Your task to perform on an android device: Go to Yahoo.com Image 0: 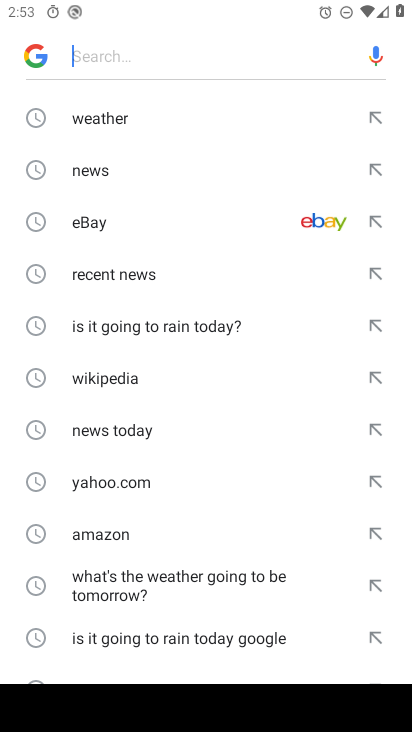
Step 0: press home button
Your task to perform on an android device: Go to Yahoo.com Image 1: 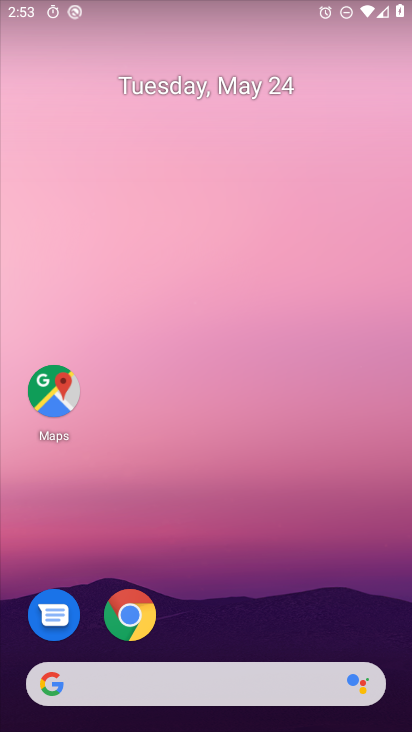
Step 1: click (131, 619)
Your task to perform on an android device: Go to Yahoo.com Image 2: 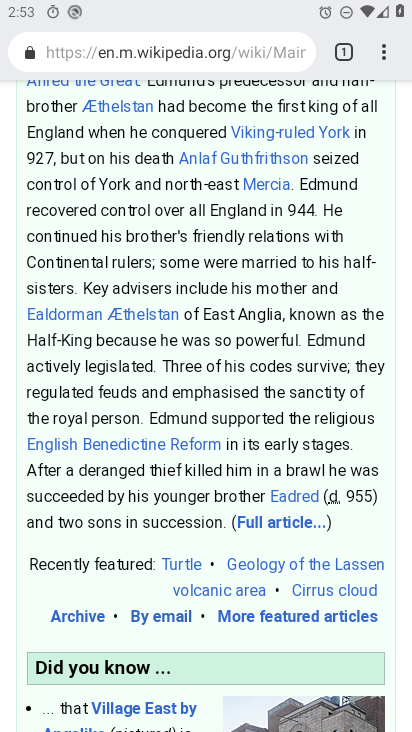
Step 2: click (351, 46)
Your task to perform on an android device: Go to Yahoo.com Image 3: 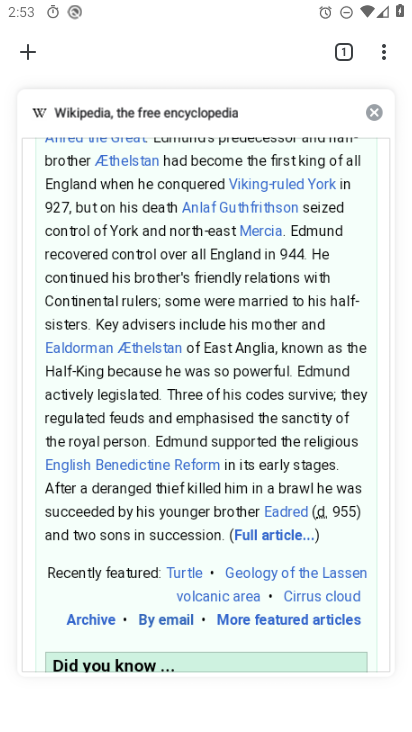
Step 3: click (378, 109)
Your task to perform on an android device: Go to Yahoo.com Image 4: 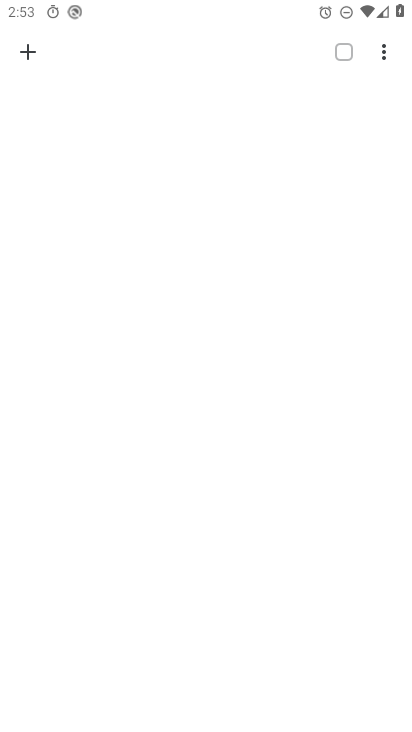
Step 4: click (30, 50)
Your task to perform on an android device: Go to Yahoo.com Image 5: 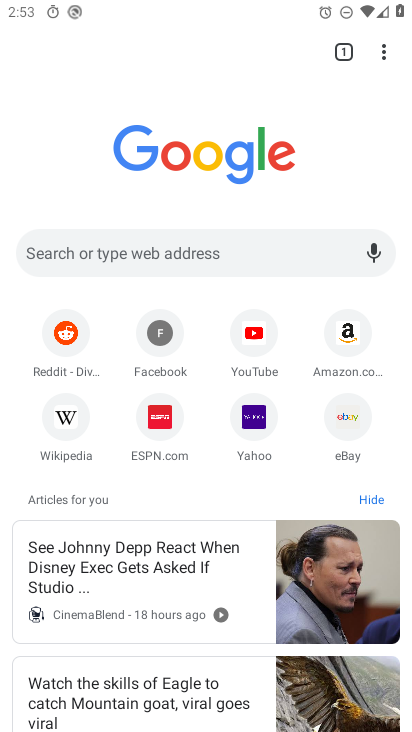
Step 5: click (241, 410)
Your task to perform on an android device: Go to Yahoo.com Image 6: 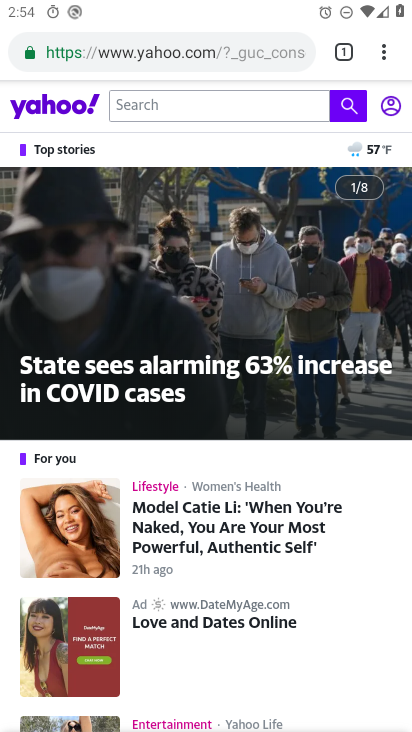
Step 6: task complete